Your task to perform on an android device: open chrome and create a bookmark for the current page Image 0: 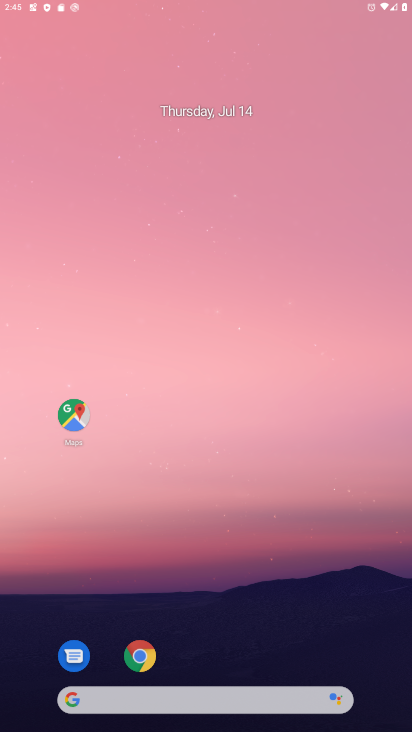
Step 0: press home button
Your task to perform on an android device: open chrome and create a bookmark for the current page Image 1: 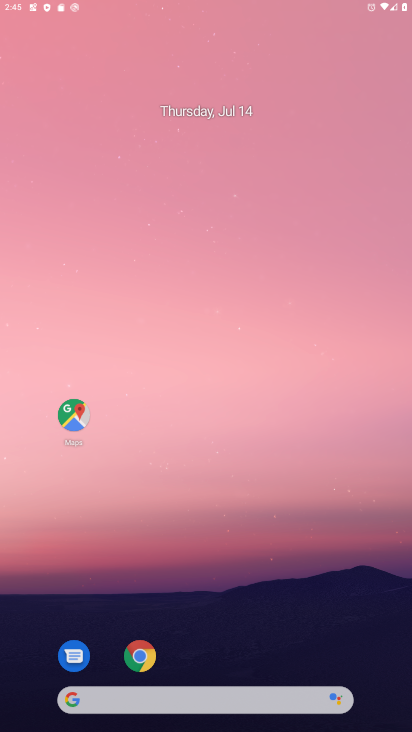
Step 1: click (93, 1)
Your task to perform on an android device: open chrome and create a bookmark for the current page Image 2: 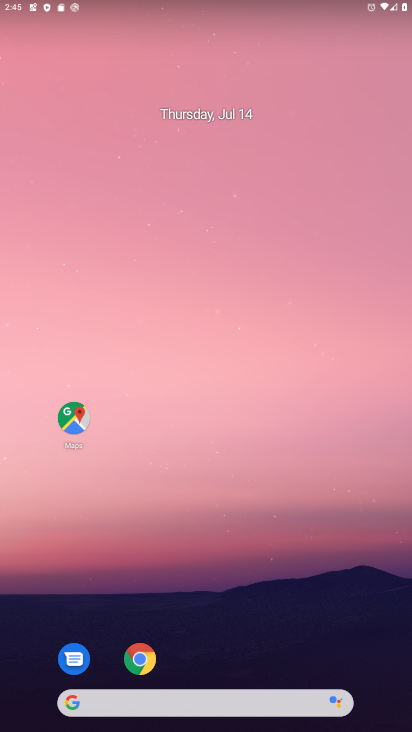
Step 2: drag from (315, 629) to (259, 5)
Your task to perform on an android device: open chrome and create a bookmark for the current page Image 3: 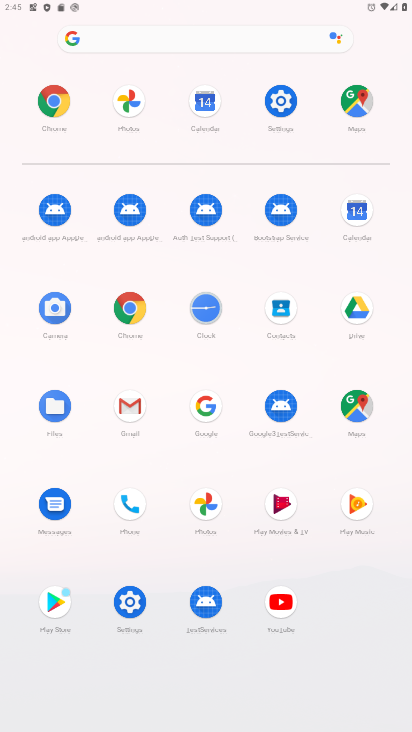
Step 3: click (56, 103)
Your task to perform on an android device: open chrome and create a bookmark for the current page Image 4: 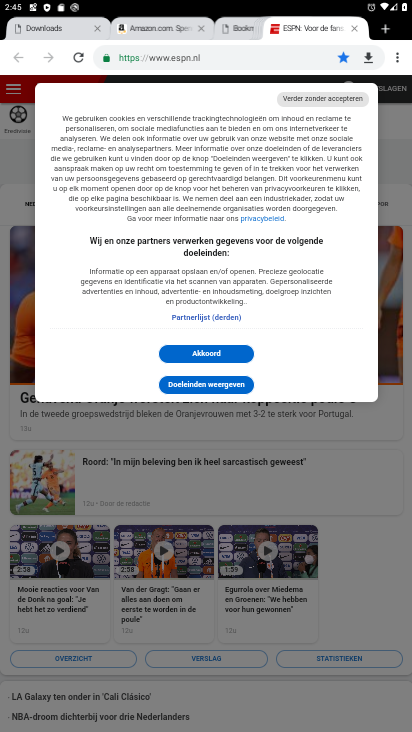
Step 4: task complete